Your task to perform on an android device: What's the weather going to be this weekend? Image 0: 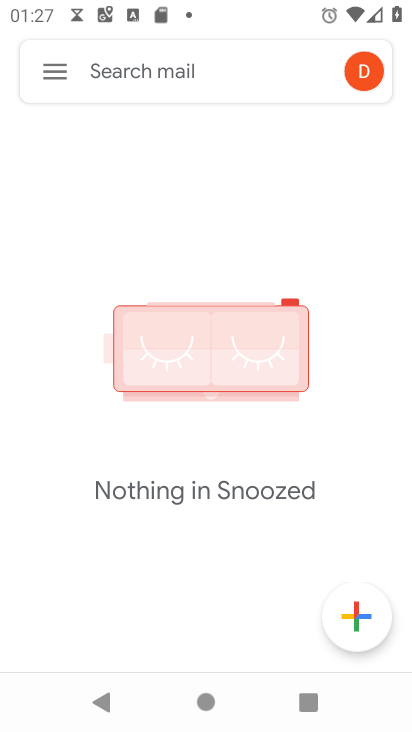
Step 0: press home button
Your task to perform on an android device: What's the weather going to be this weekend? Image 1: 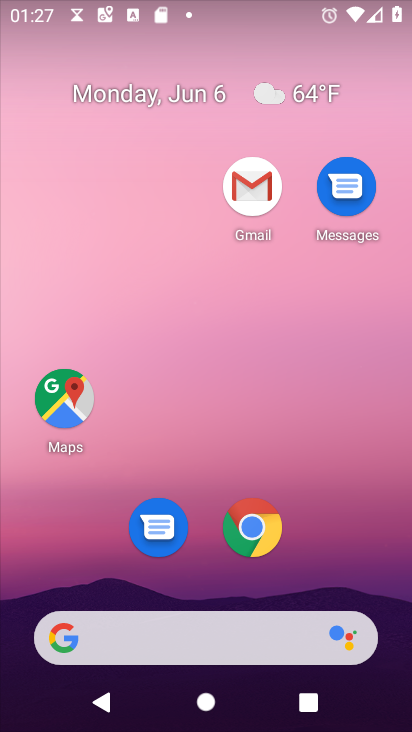
Step 1: click (296, 95)
Your task to perform on an android device: What's the weather going to be this weekend? Image 2: 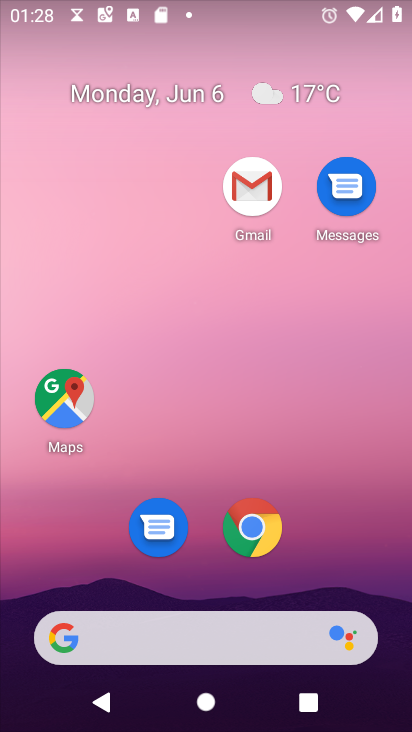
Step 2: click (303, 85)
Your task to perform on an android device: What's the weather going to be this weekend? Image 3: 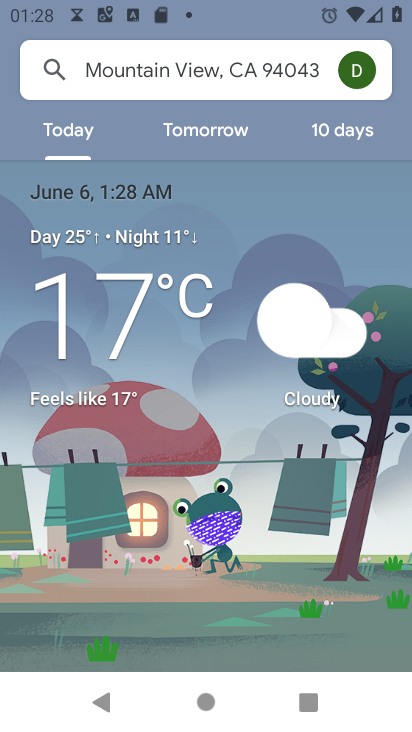
Step 3: click (337, 128)
Your task to perform on an android device: What's the weather going to be this weekend? Image 4: 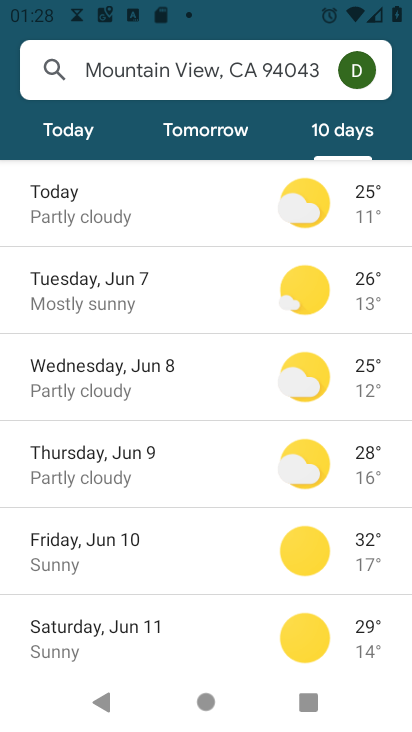
Step 4: task complete